Your task to perform on an android device: Search for vegetarian restaurants on Maps Image 0: 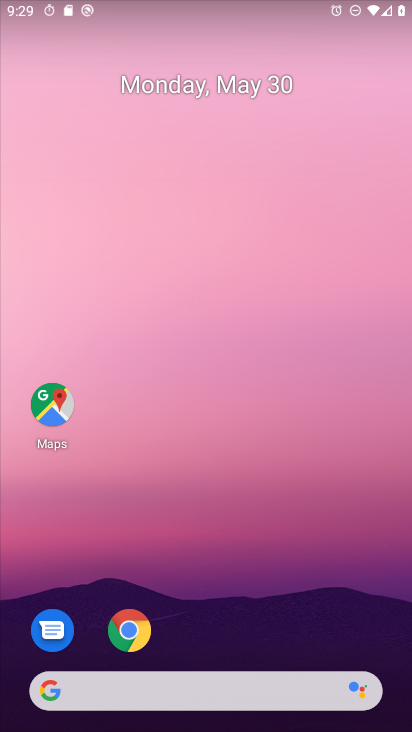
Step 0: drag from (339, 622) to (285, 98)
Your task to perform on an android device: Search for vegetarian restaurants on Maps Image 1: 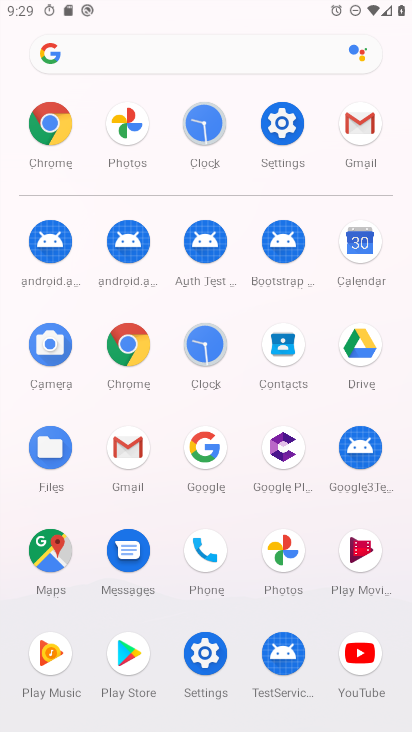
Step 1: click (54, 550)
Your task to perform on an android device: Search for vegetarian restaurants on Maps Image 2: 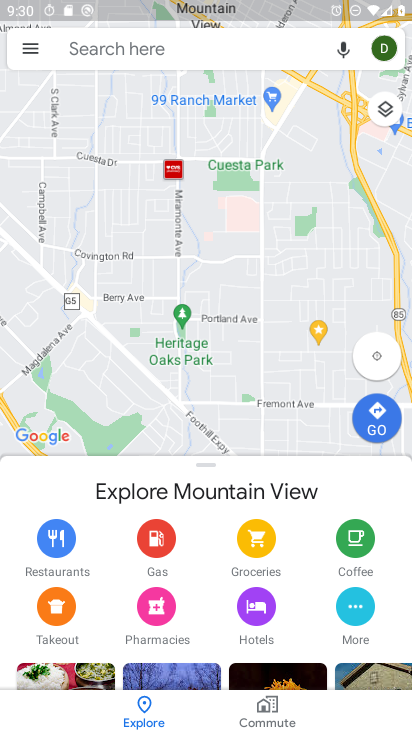
Step 2: click (157, 62)
Your task to perform on an android device: Search for vegetarian restaurants on Maps Image 3: 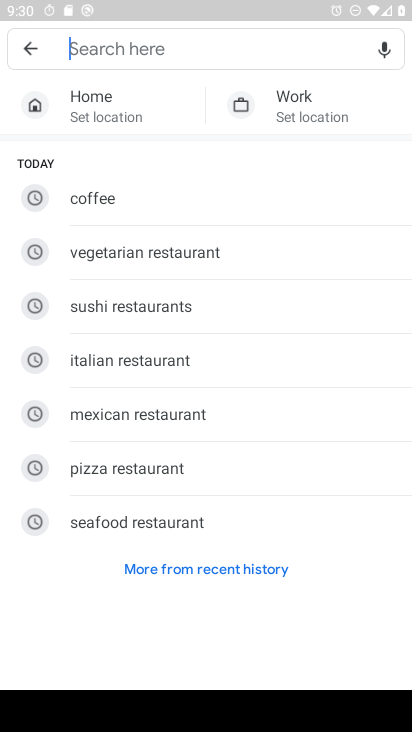
Step 3: click (217, 242)
Your task to perform on an android device: Search for vegetarian restaurants on Maps Image 4: 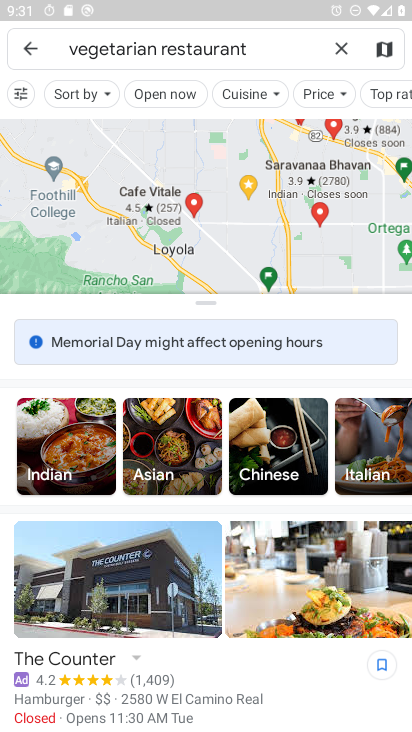
Step 4: task complete